Your task to perform on an android device: Open Wikipedia Image 0: 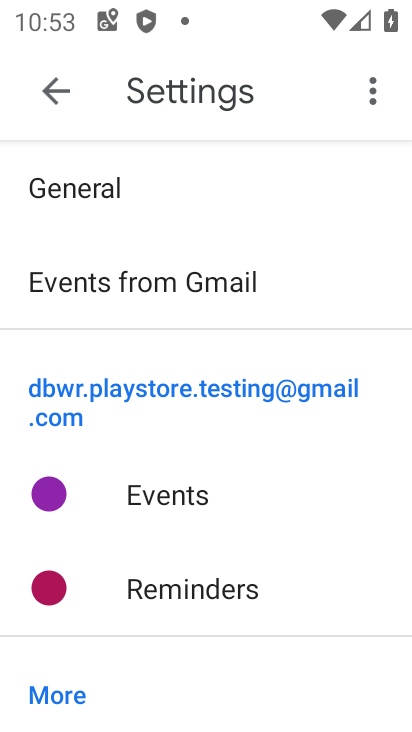
Step 0: click (39, 95)
Your task to perform on an android device: Open Wikipedia Image 1: 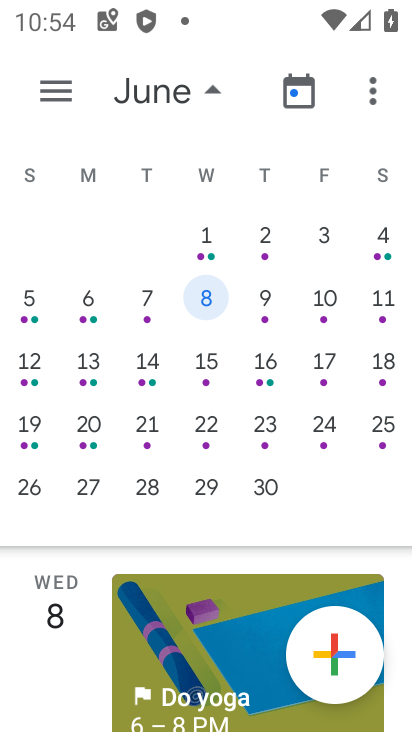
Step 1: press home button
Your task to perform on an android device: Open Wikipedia Image 2: 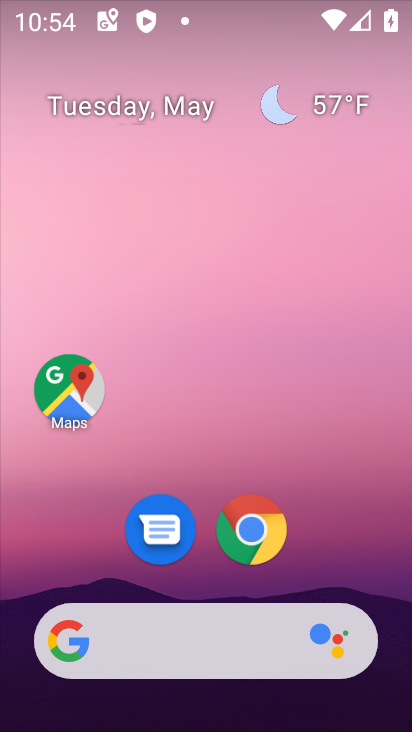
Step 2: click (248, 535)
Your task to perform on an android device: Open Wikipedia Image 3: 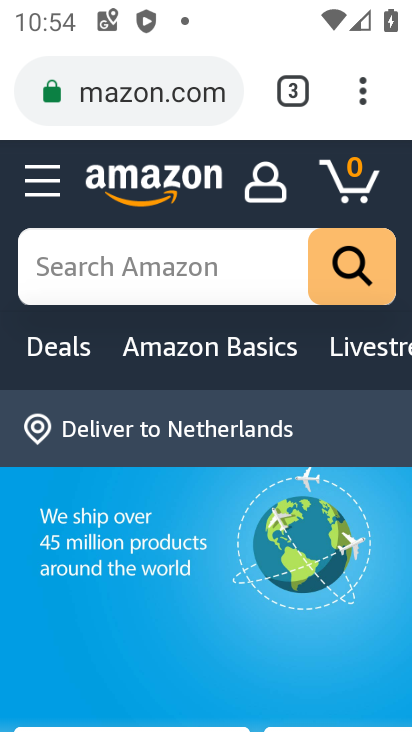
Step 3: click (61, 91)
Your task to perform on an android device: Open Wikipedia Image 4: 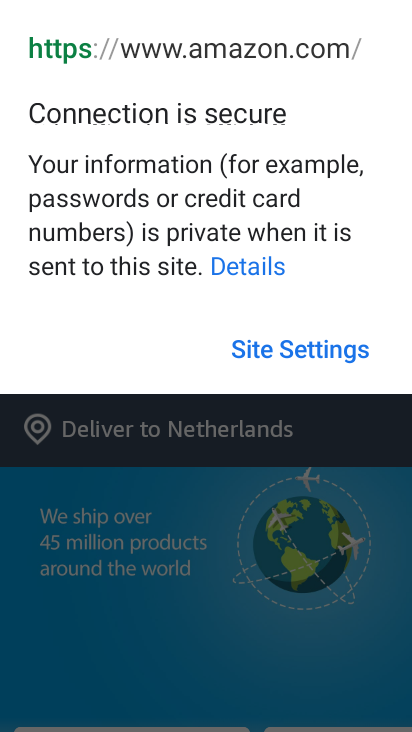
Step 4: click (83, 547)
Your task to perform on an android device: Open Wikipedia Image 5: 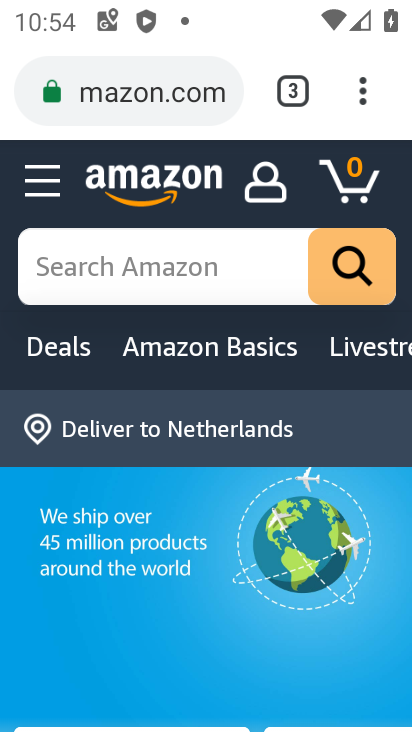
Step 5: click (290, 77)
Your task to perform on an android device: Open Wikipedia Image 6: 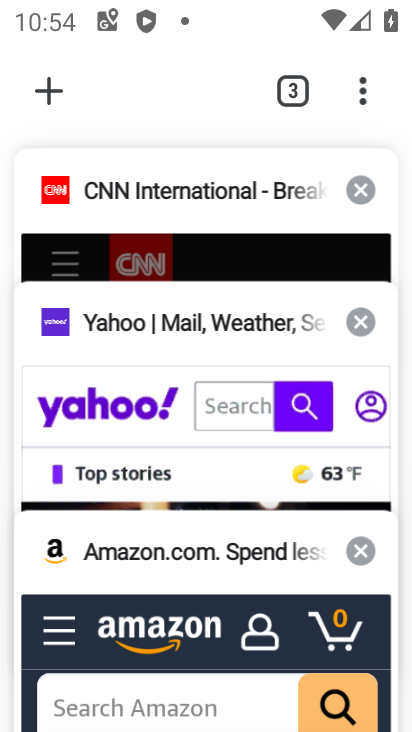
Step 6: click (50, 76)
Your task to perform on an android device: Open Wikipedia Image 7: 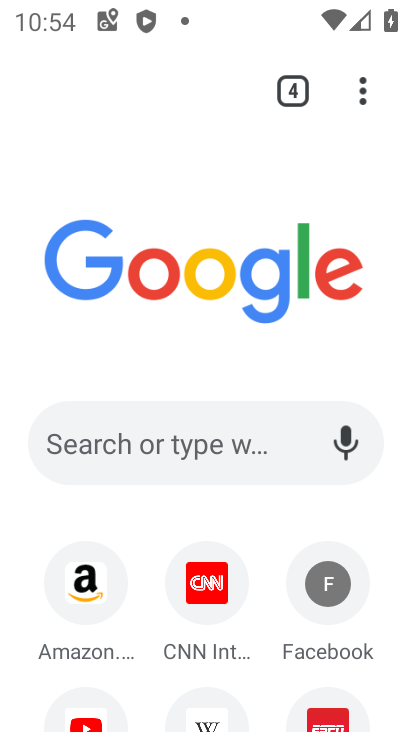
Step 7: click (224, 716)
Your task to perform on an android device: Open Wikipedia Image 8: 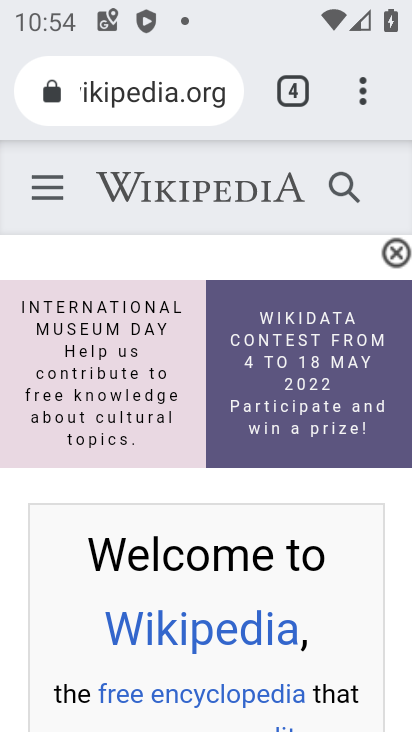
Step 8: task complete